Your task to perform on an android device: Go to notification settings Image 0: 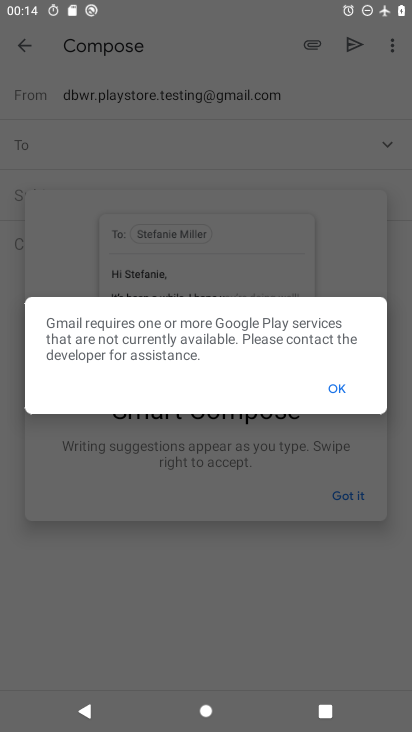
Step 0: press home button
Your task to perform on an android device: Go to notification settings Image 1: 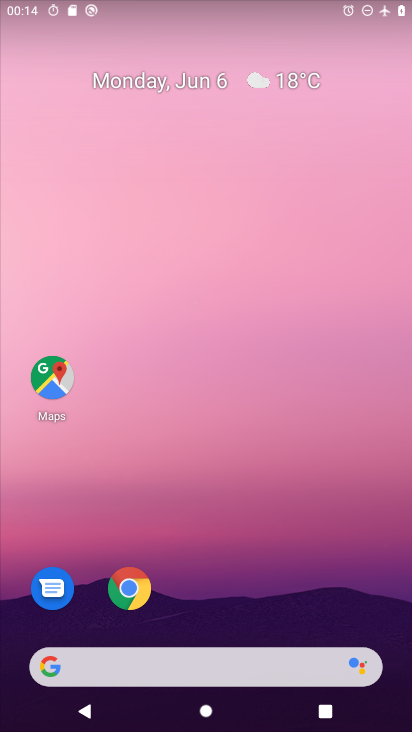
Step 1: drag from (370, 592) to (372, 159)
Your task to perform on an android device: Go to notification settings Image 2: 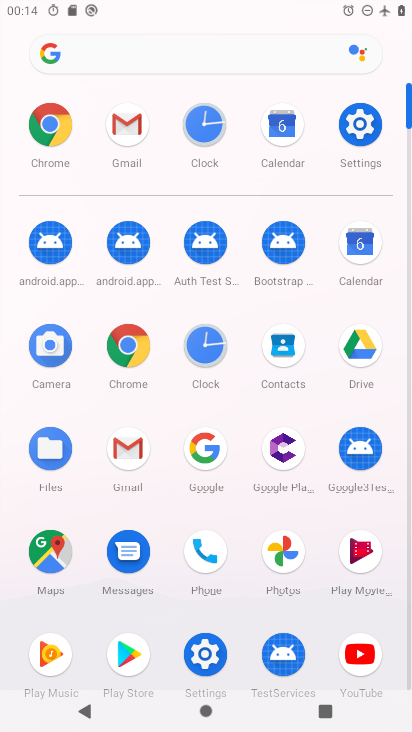
Step 2: click (209, 663)
Your task to perform on an android device: Go to notification settings Image 3: 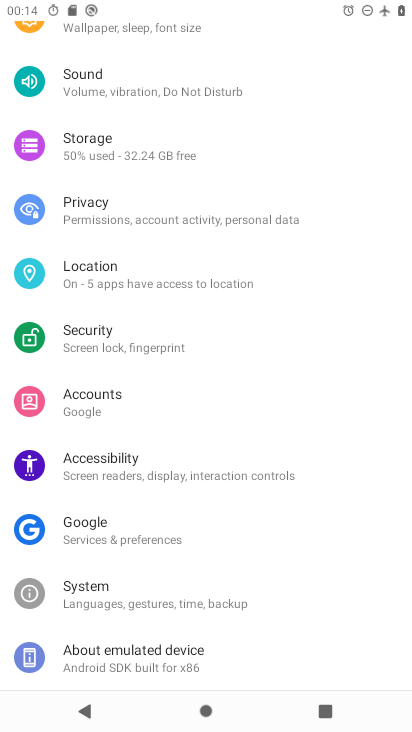
Step 3: drag from (314, 540) to (336, 380)
Your task to perform on an android device: Go to notification settings Image 4: 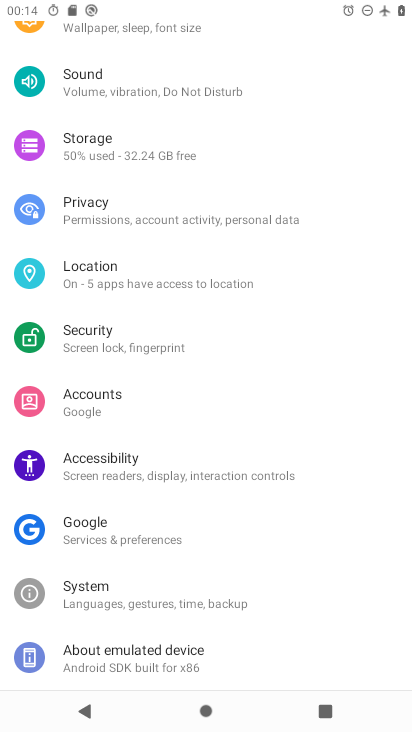
Step 4: drag from (337, 300) to (338, 407)
Your task to perform on an android device: Go to notification settings Image 5: 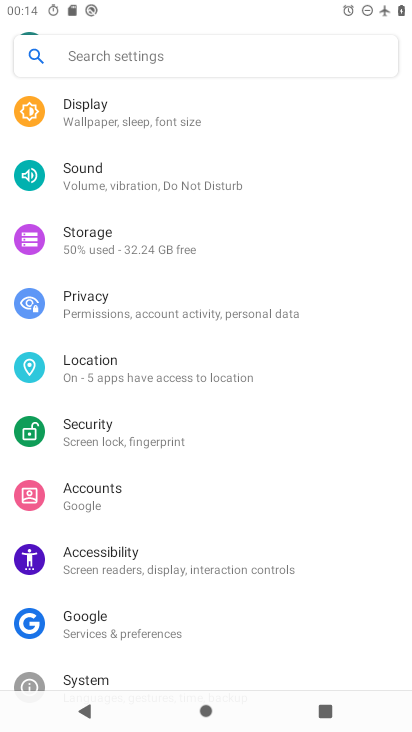
Step 5: drag from (348, 230) to (352, 353)
Your task to perform on an android device: Go to notification settings Image 6: 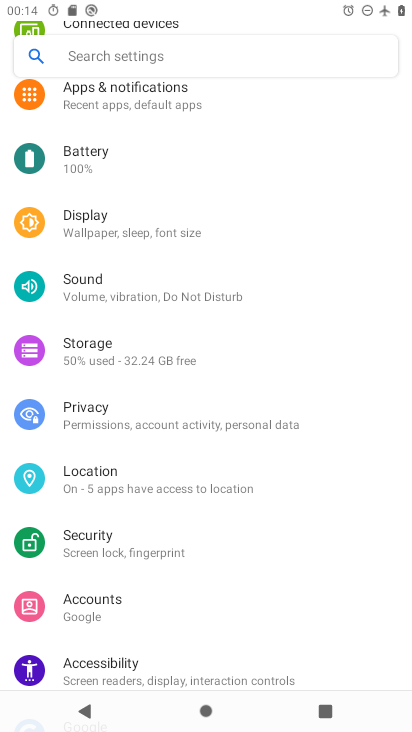
Step 6: drag from (349, 267) to (354, 334)
Your task to perform on an android device: Go to notification settings Image 7: 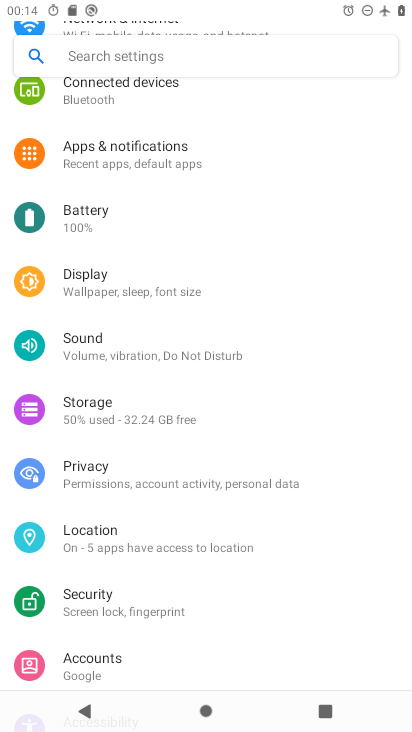
Step 7: drag from (354, 219) to (354, 305)
Your task to perform on an android device: Go to notification settings Image 8: 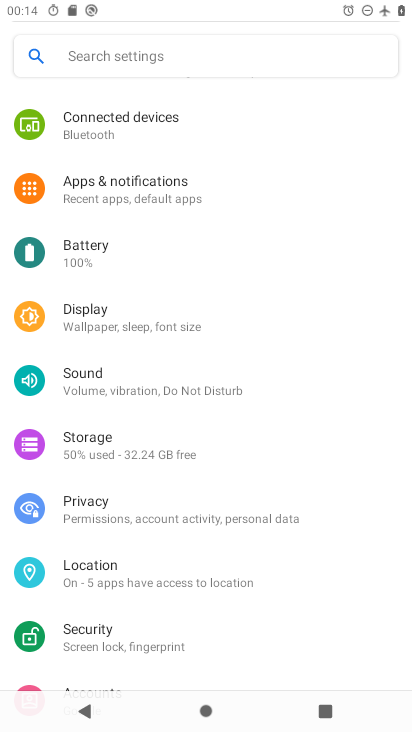
Step 8: click (188, 194)
Your task to perform on an android device: Go to notification settings Image 9: 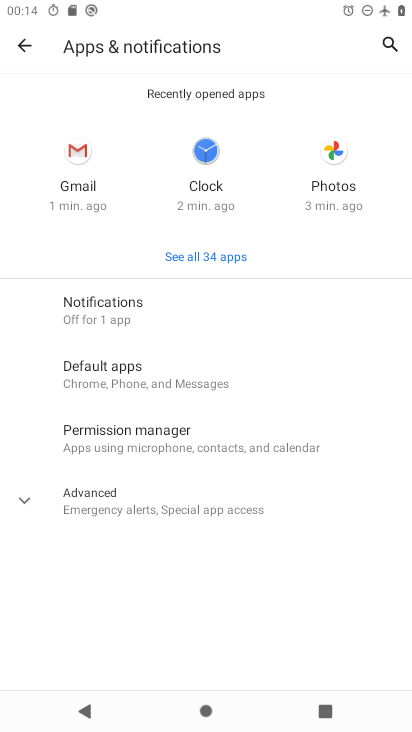
Step 9: click (184, 328)
Your task to perform on an android device: Go to notification settings Image 10: 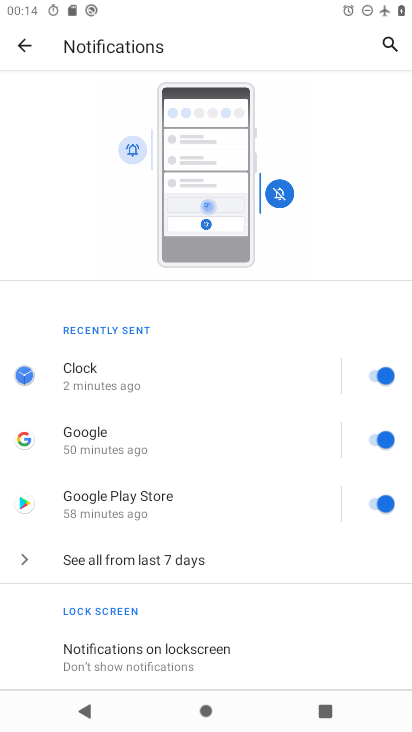
Step 10: task complete